Your task to perform on an android device: Open wifi settings Image 0: 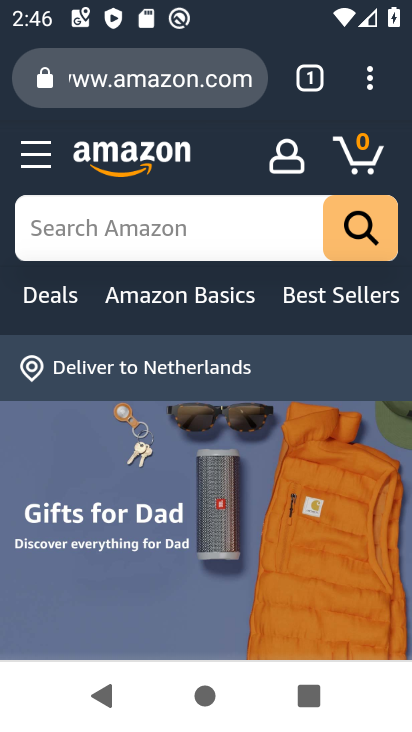
Step 0: press home button
Your task to perform on an android device: Open wifi settings Image 1: 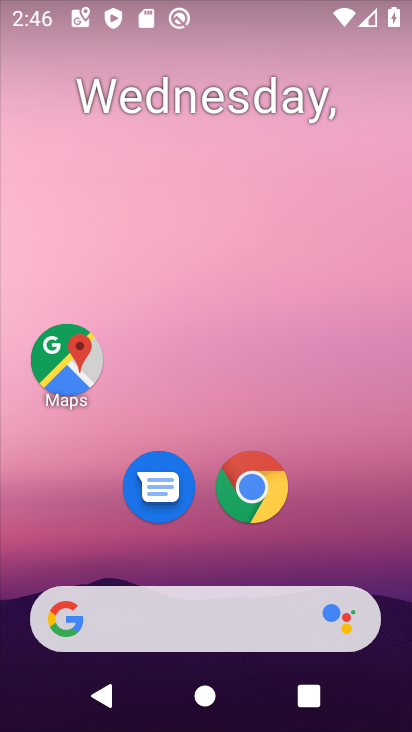
Step 1: drag from (309, 461) to (300, 31)
Your task to perform on an android device: Open wifi settings Image 2: 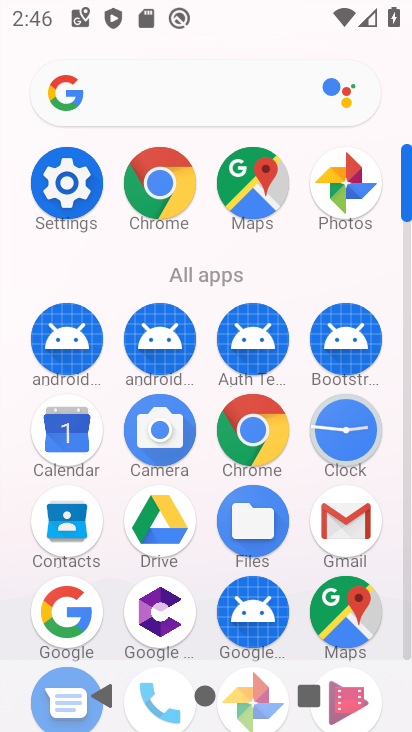
Step 2: click (87, 182)
Your task to perform on an android device: Open wifi settings Image 3: 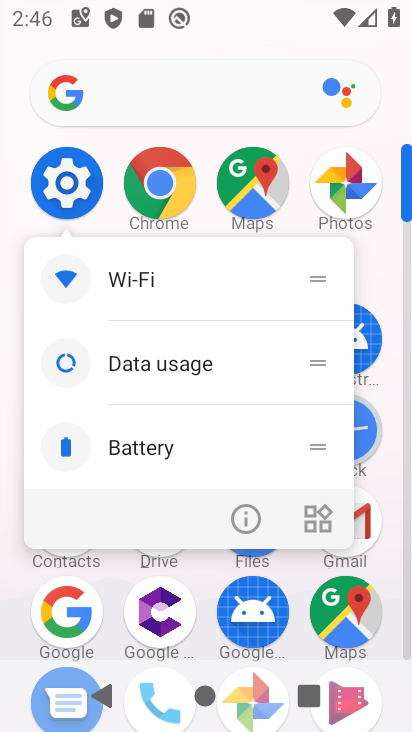
Step 3: click (79, 181)
Your task to perform on an android device: Open wifi settings Image 4: 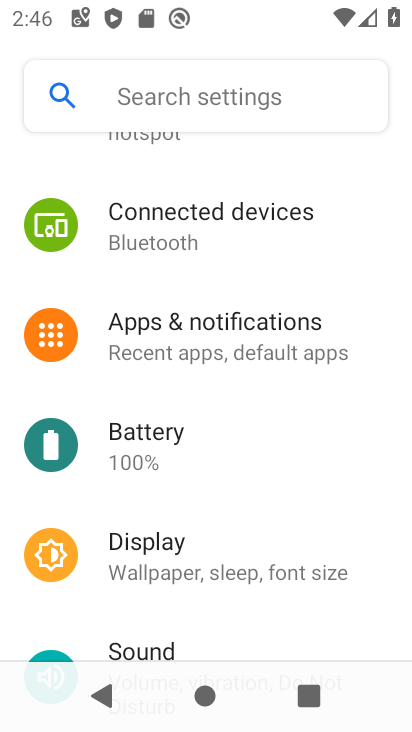
Step 4: drag from (251, 272) to (332, 566)
Your task to perform on an android device: Open wifi settings Image 5: 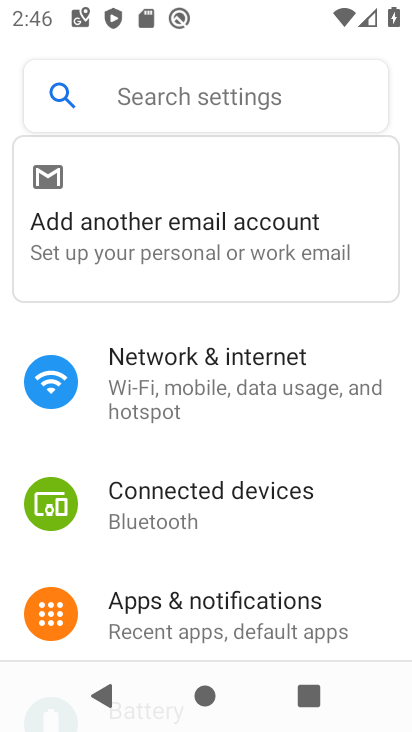
Step 5: click (225, 380)
Your task to perform on an android device: Open wifi settings Image 6: 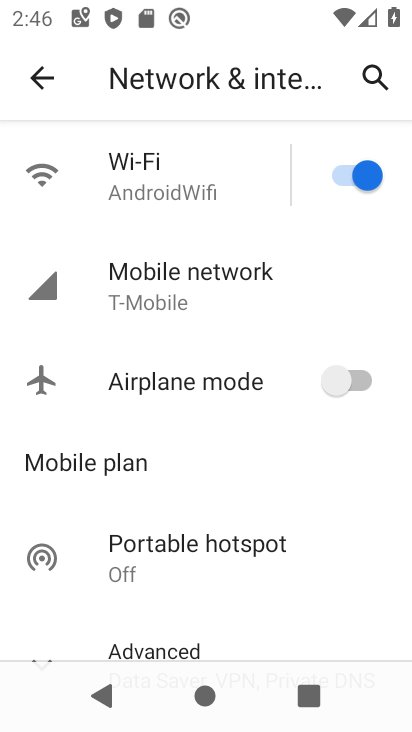
Step 6: click (200, 175)
Your task to perform on an android device: Open wifi settings Image 7: 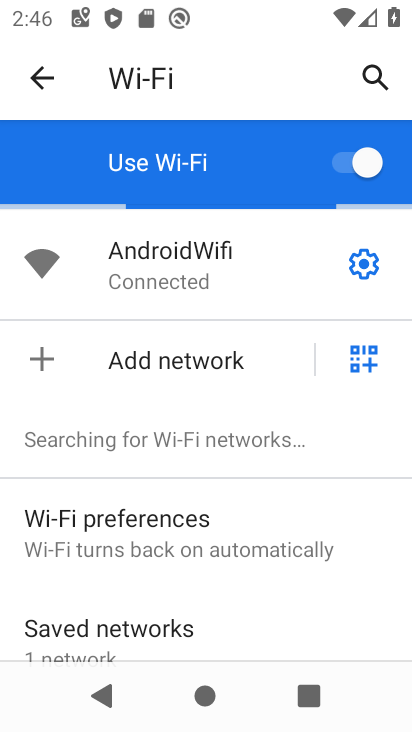
Step 7: task complete